Your task to perform on an android device: Search for "usb-b" on walmart, select the first entry, add it to the cart, then select checkout. Image 0: 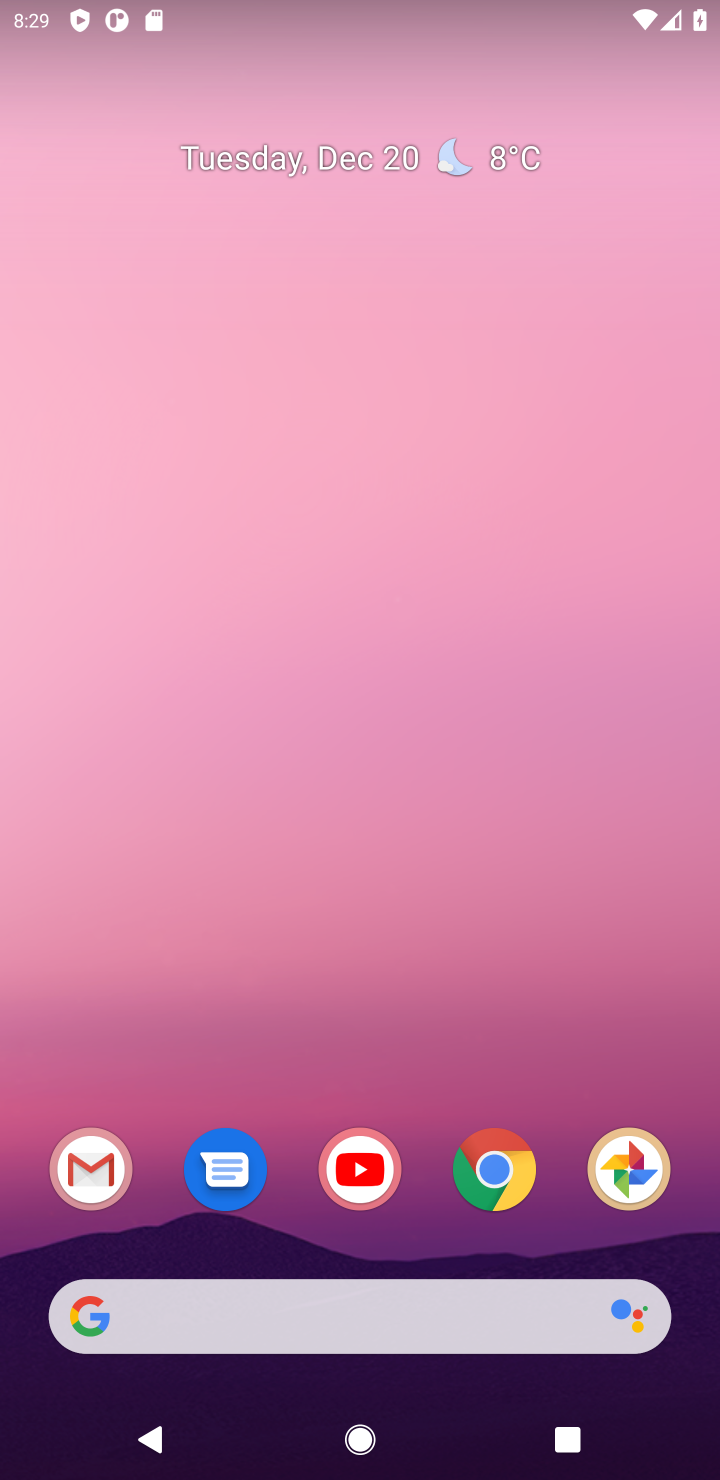
Step 0: click (519, 1171)
Your task to perform on an android device: Search for "usb-b" on walmart, select the first entry, add it to the cart, then select checkout. Image 1: 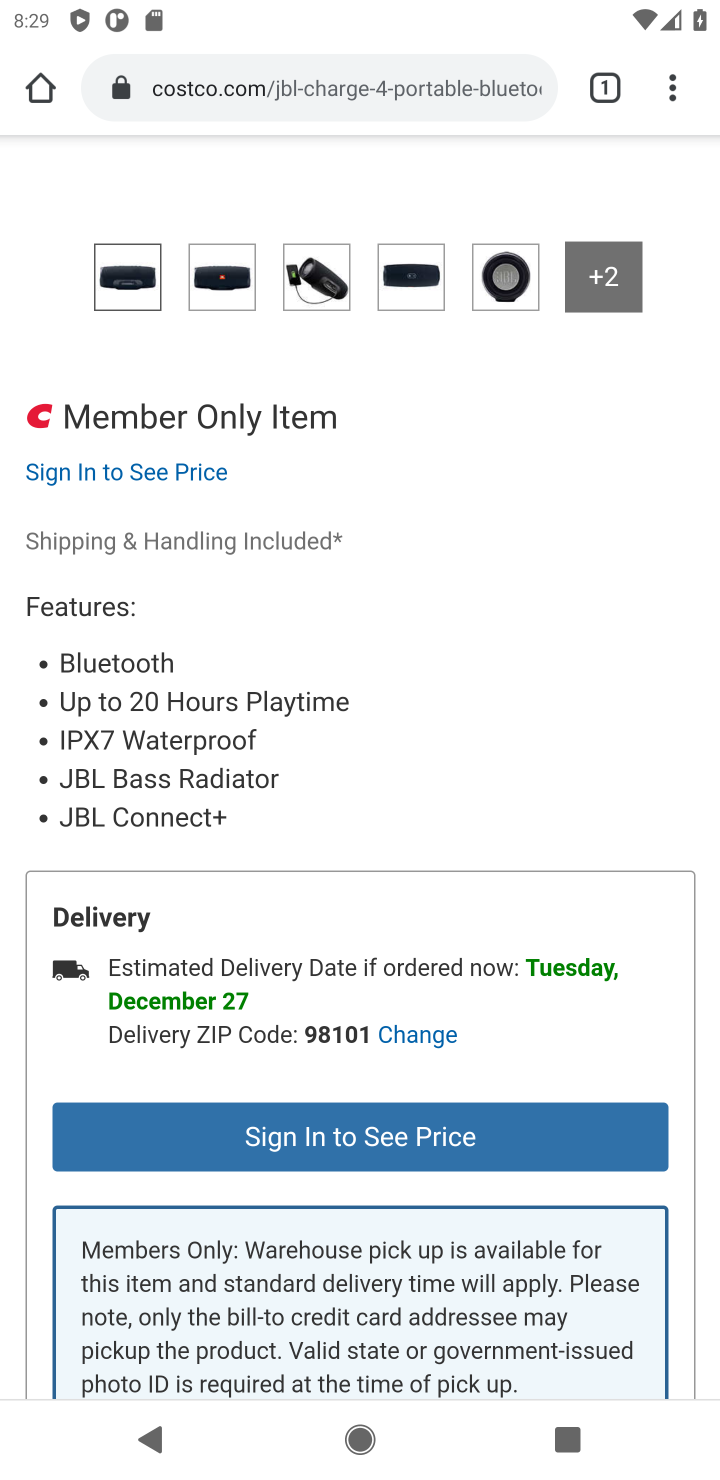
Step 1: click (396, 101)
Your task to perform on an android device: Search for "usb-b" on walmart, select the first entry, add it to the cart, then select checkout. Image 2: 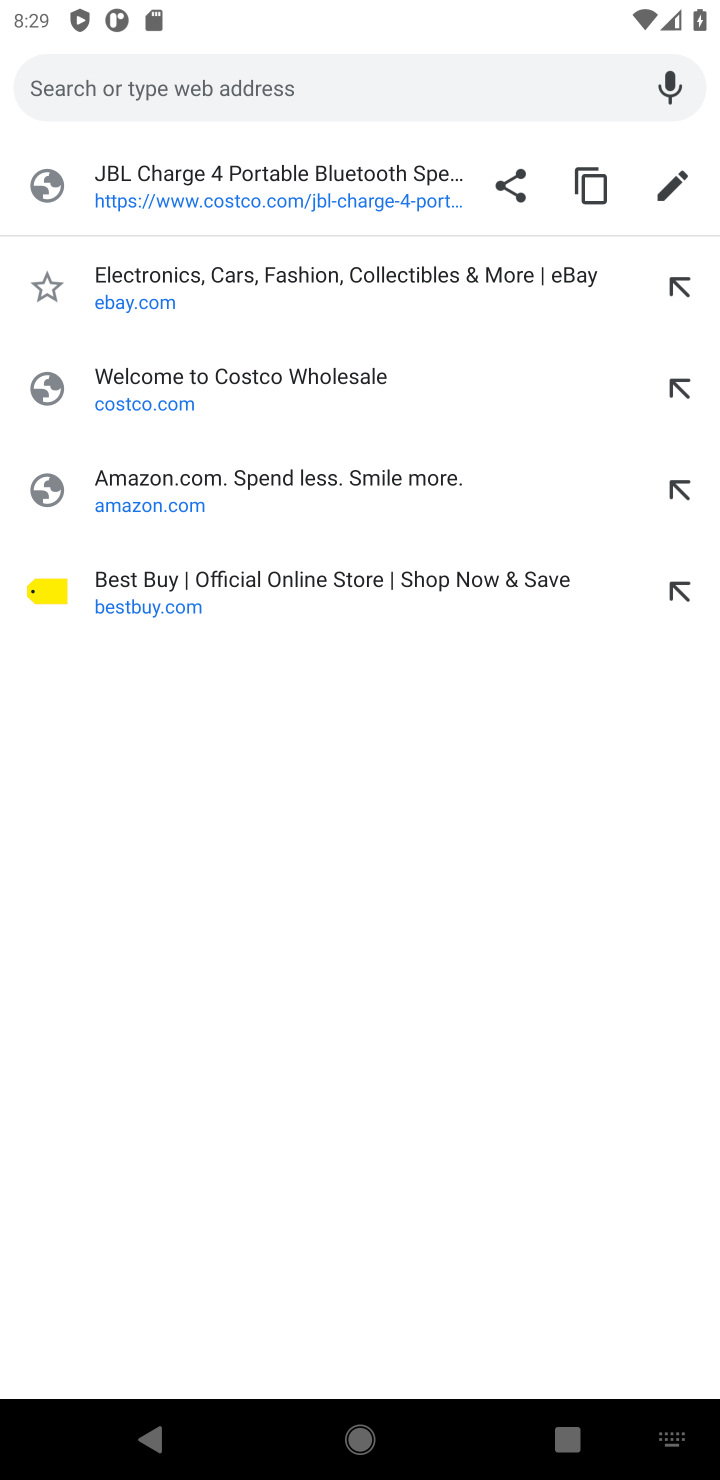
Step 2: type "walmaert"
Your task to perform on an android device: Search for "usb-b" on walmart, select the first entry, add it to the cart, then select checkout. Image 3: 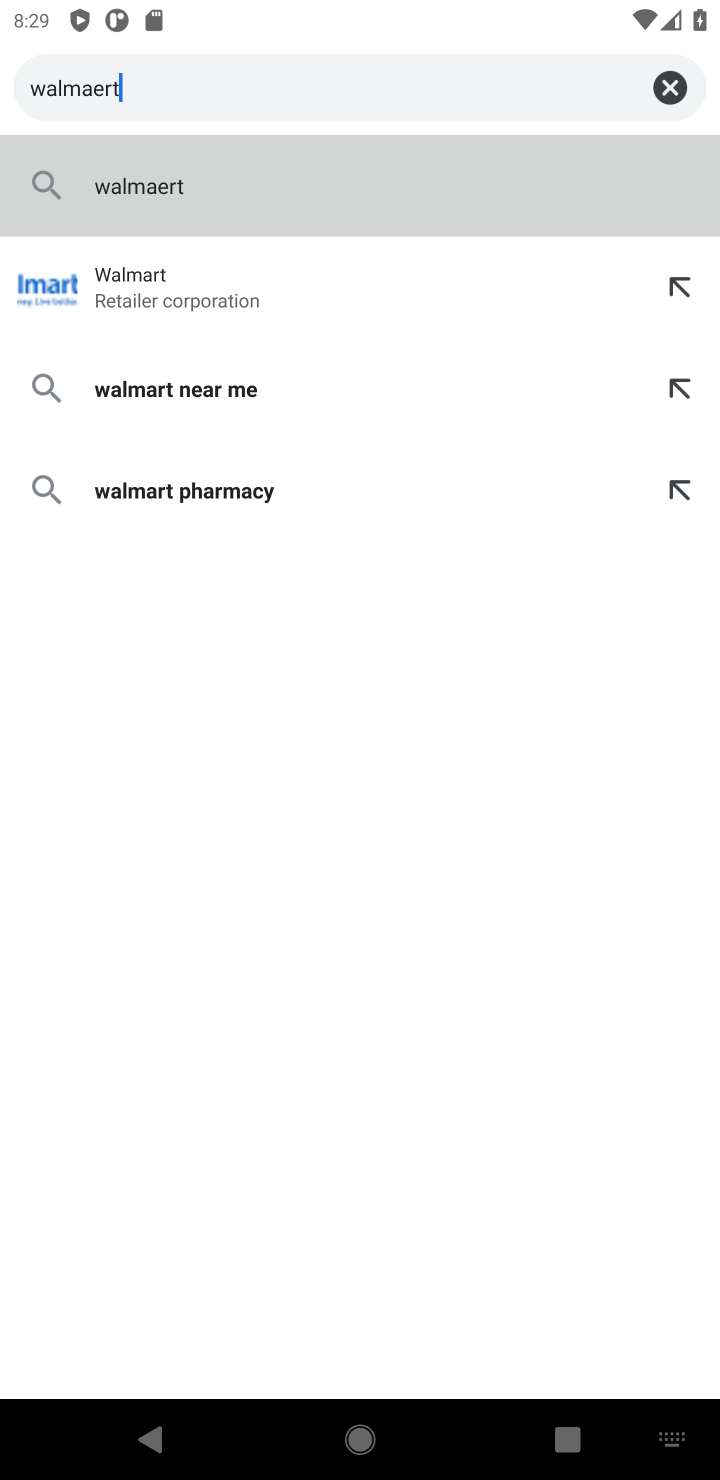
Step 3: click (359, 289)
Your task to perform on an android device: Search for "usb-b" on walmart, select the first entry, add it to the cart, then select checkout. Image 4: 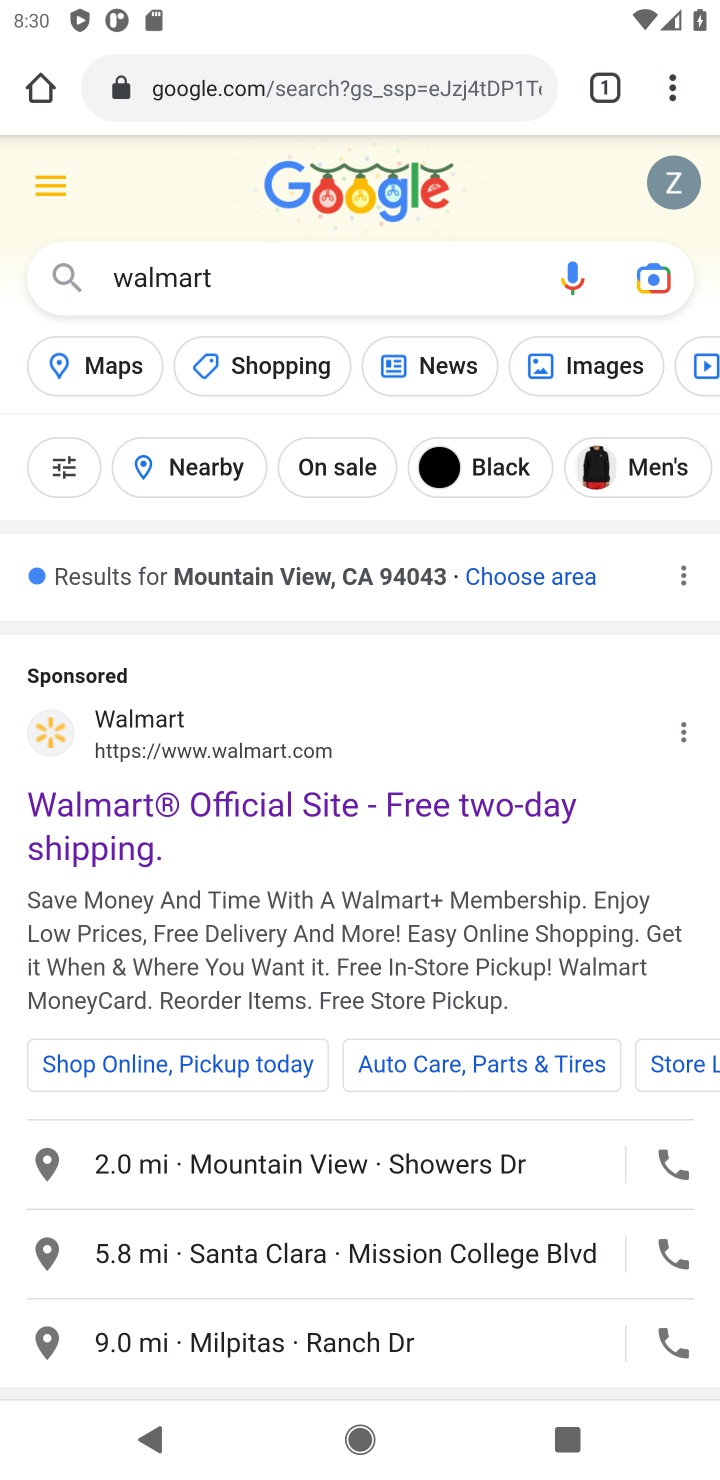
Step 4: click (136, 775)
Your task to perform on an android device: Search for "usb-b" on walmart, select the first entry, add it to the cart, then select checkout. Image 5: 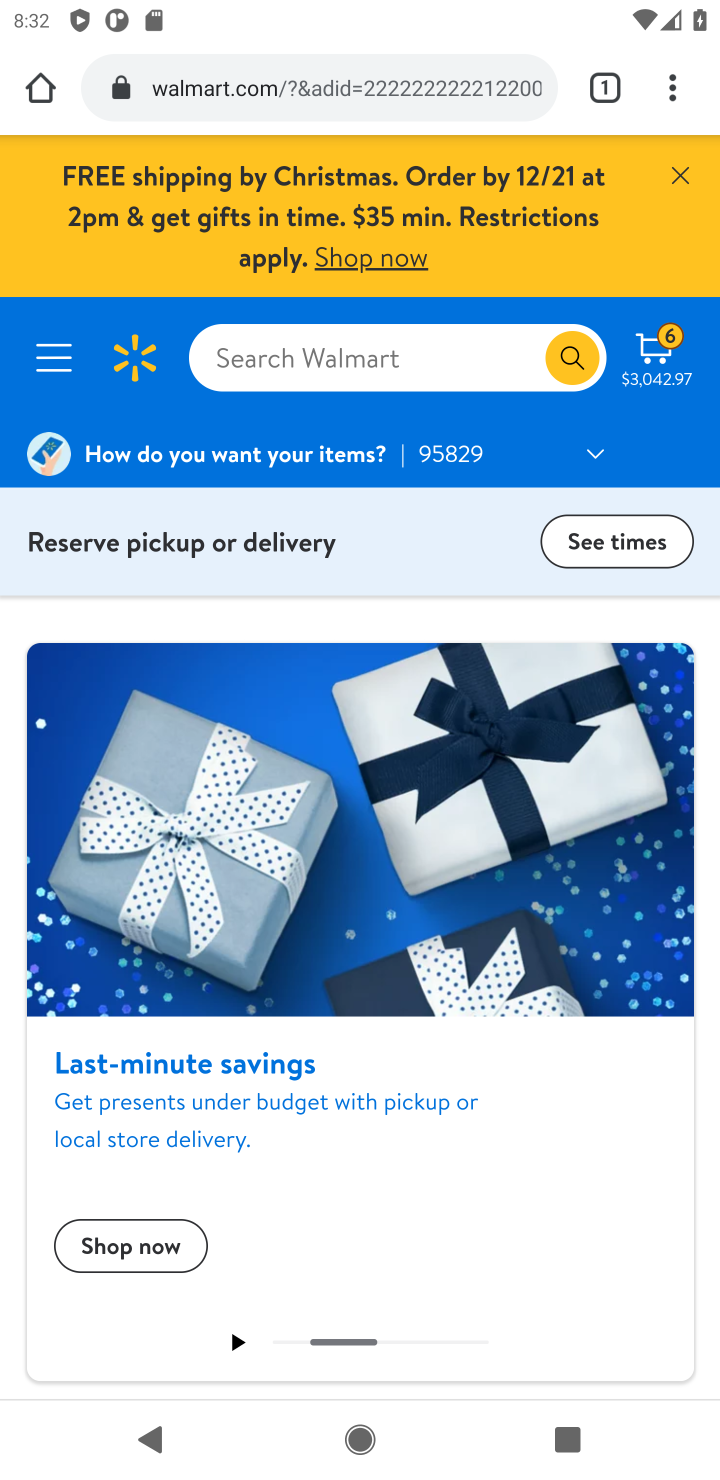
Step 5: task complete